Your task to perform on an android device: see tabs open on other devices in the chrome app Image 0: 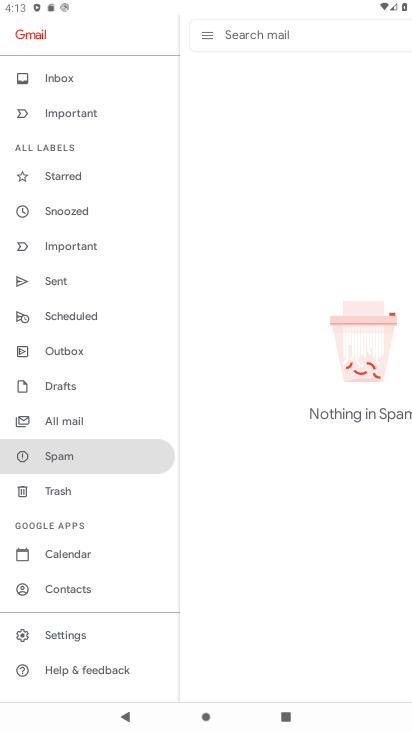
Step 0: press home button
Your task to perform on an android device: see tabs open on other devices in the chrome app Image 1: 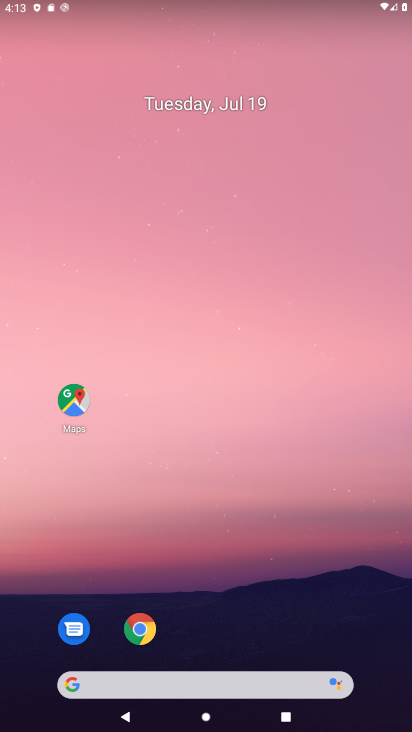
Step 1: click (143, 627)
Your task to perform on an android device: see tabs open on other devices in the chrome app Image 2: 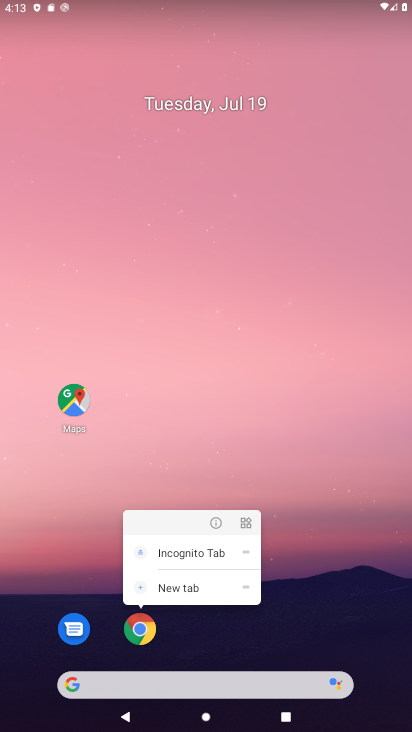
Step 2: click (143, 627)
Your task to perform on an android device: see tabs open on other devices in the chrome app Image 3: 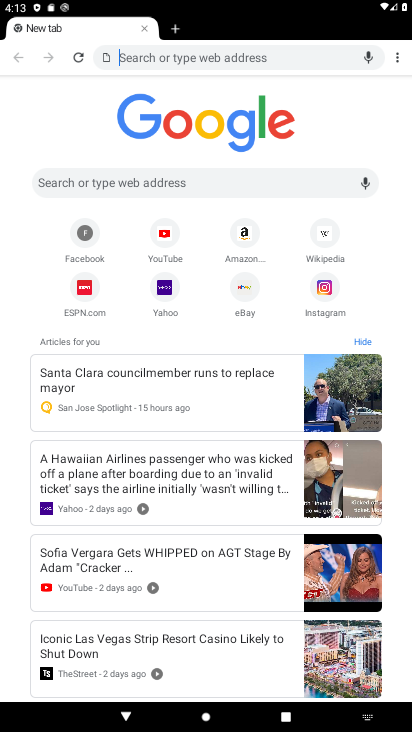
Step 3: task complete